Your task to perform on an android device: Go to Reddit.com Image 0: 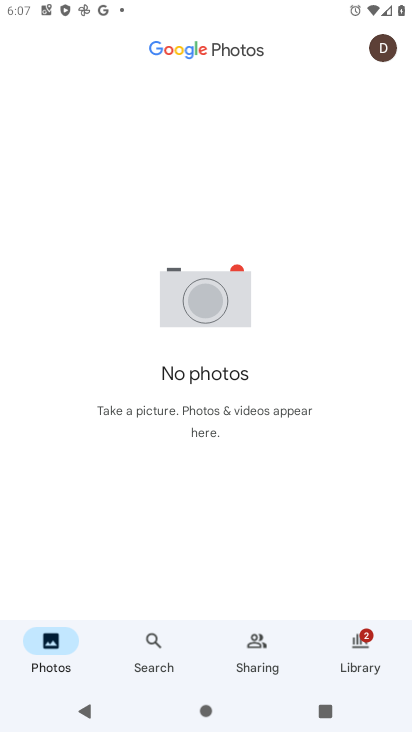
Step 0: press back button
Your task to perform on an android device: Go to Reddit.com Image 1: 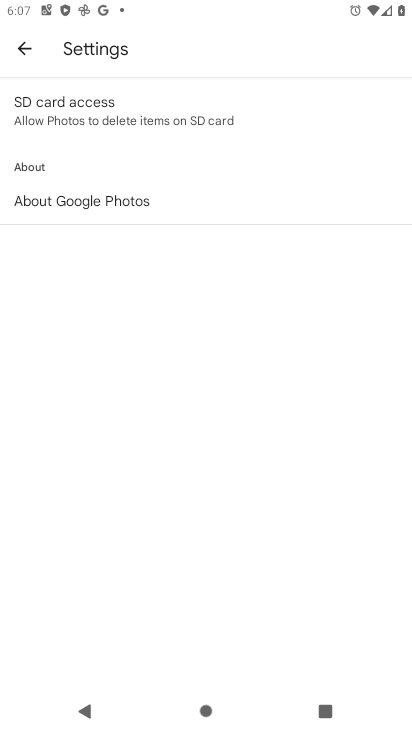
Step 1: press home button
Your task to perform on an android device: Go to Reddit.com Image 2: 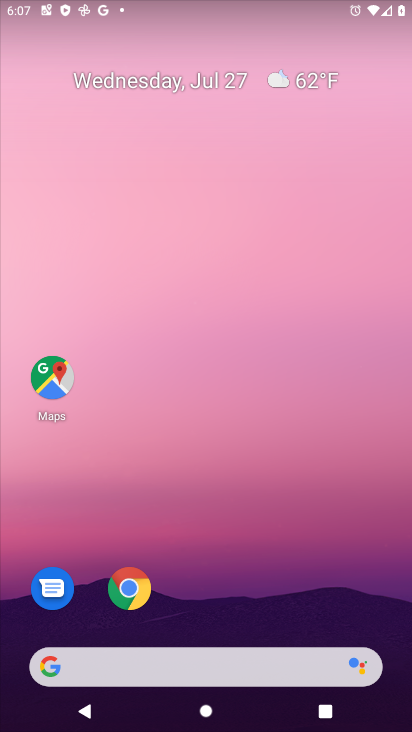
Step 2: click (129, 601)
Your task to perform on an android device: Go to Reddit.com Image 3: 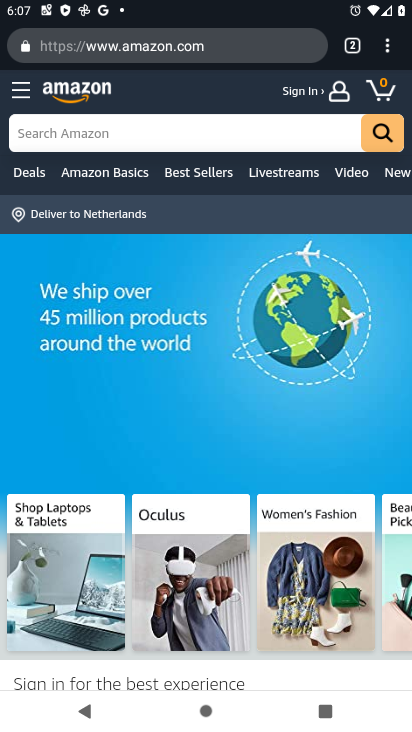
Step 3: click (171, 42)
Your task to perform on an android device: Go to Reddit.com Image 4: 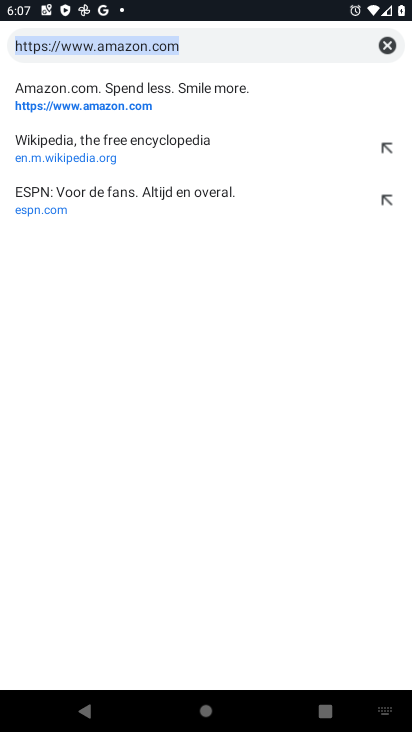
Step 4: type "www.reddit.com"
Your task to perform on an android device: Go to Reddit.com Image 5: 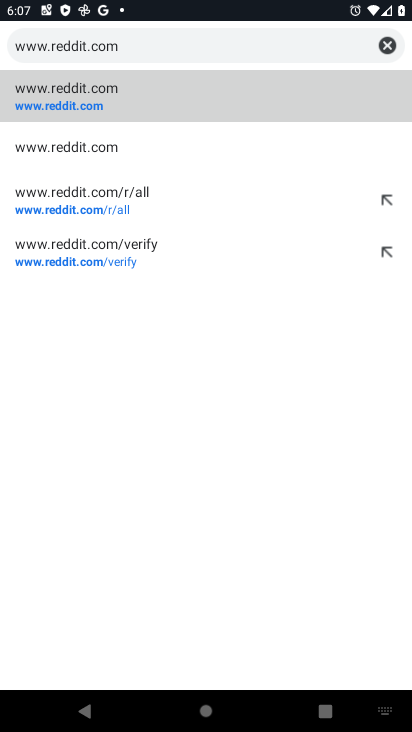
Step 5: click (48, 106)
Your task to perform on an android device: Go to Reddit.com Image 6: 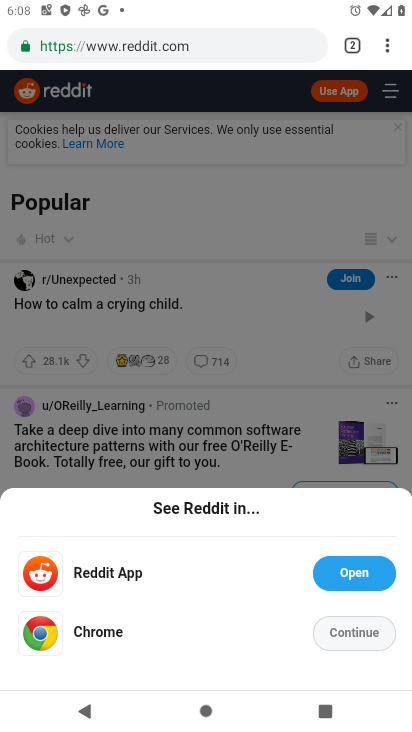
Step 6: task complete